Your task to perform on an android device: stop showing notifications on the lock screen Image 0: 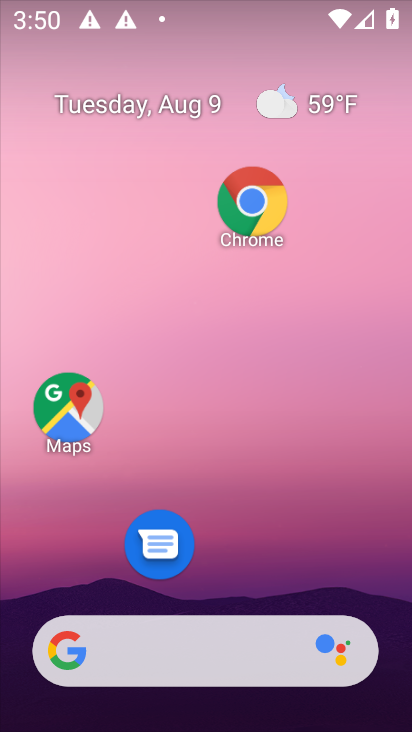
Step 0: drag from (223, 612) to (229, 255)
Your task to perform on an android device: stop showing notifications on the lock screen Image 1: 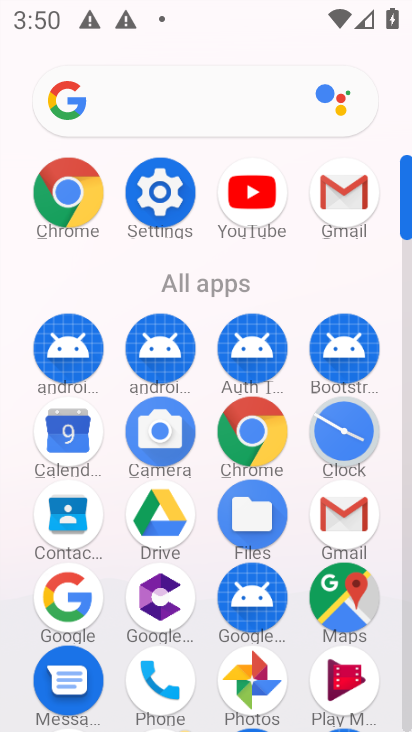
Step 1: click (160, 203)
Your task to perform on an android device: stop showing notifications on the lock screen Image 2: 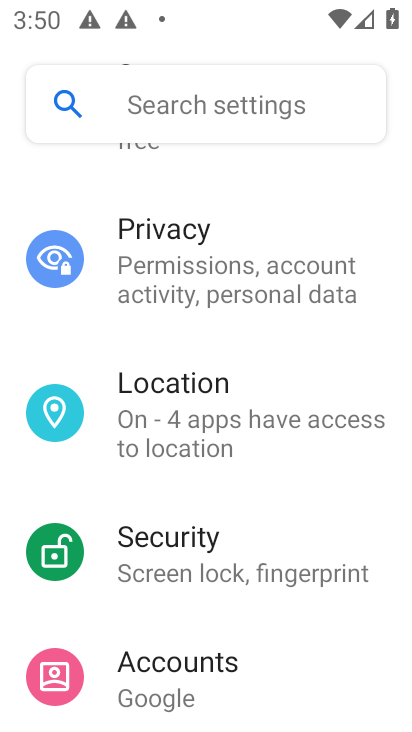
Step 2: click (174, 276)
Your task to perform on an android device: stop showing notifications on the lock screen Image 3: 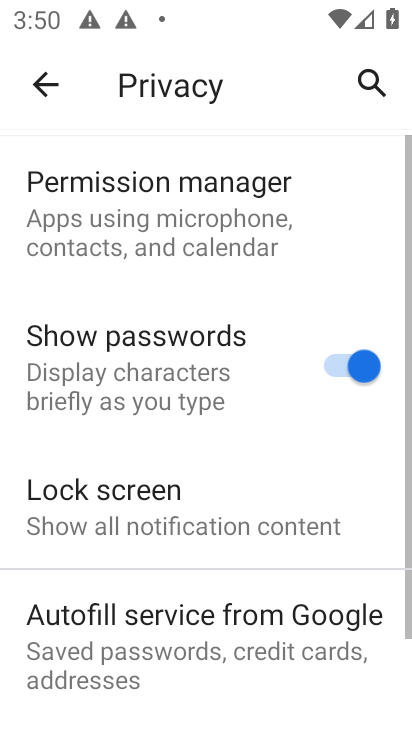
Step 3: click (159, 434)
Your task to perform on an android device: stop showing notifications on the lock screen Image 4: 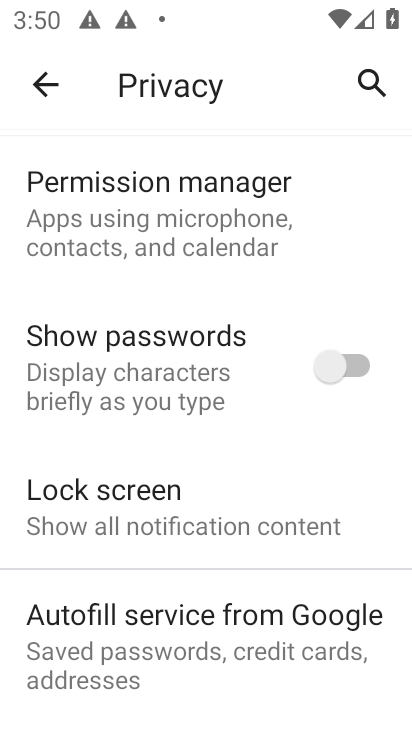
Step 4: click (124, 515)
Your task to perform on an android device: stop showing notifications on the lock screen Image 5: 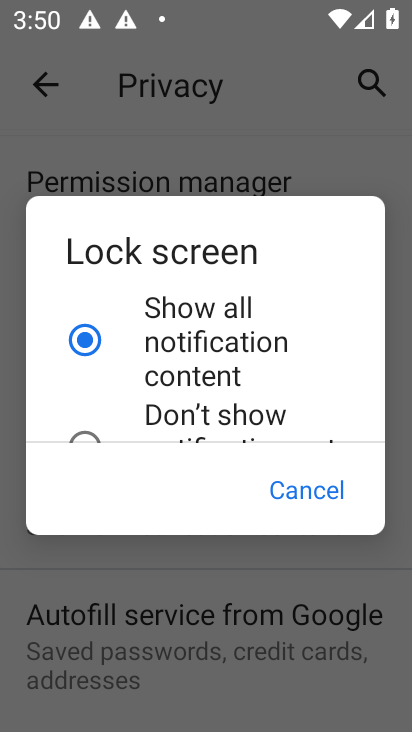
Step 5: drag from (160, 429) to (187, 228)
Your task to perform on an android device: stop showing notifications on the lock screen Image 6: 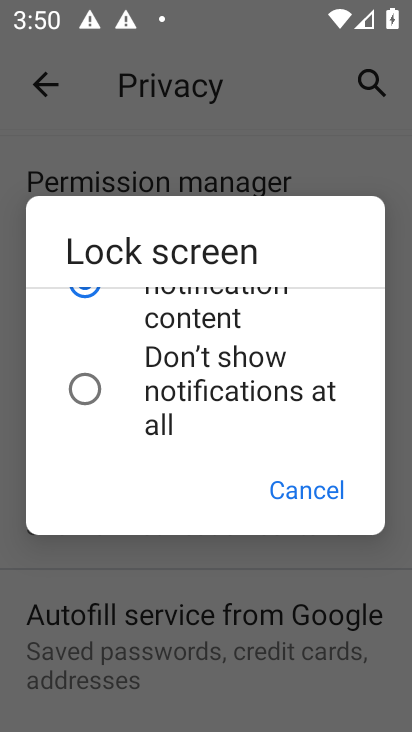
Step 6: click (80, 388)
Your task to perform on an android device: stop showing notifications on the lock screen Image 7: 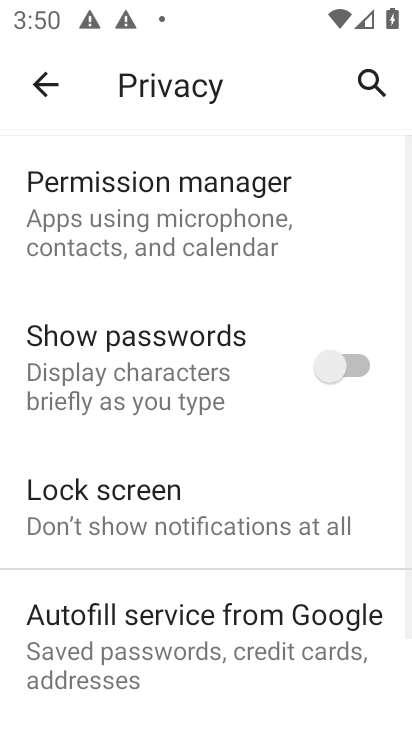
Step 7: task complete